Your task to perform on an android device: Open Youtube and go to the subscriptions tab Image 0: 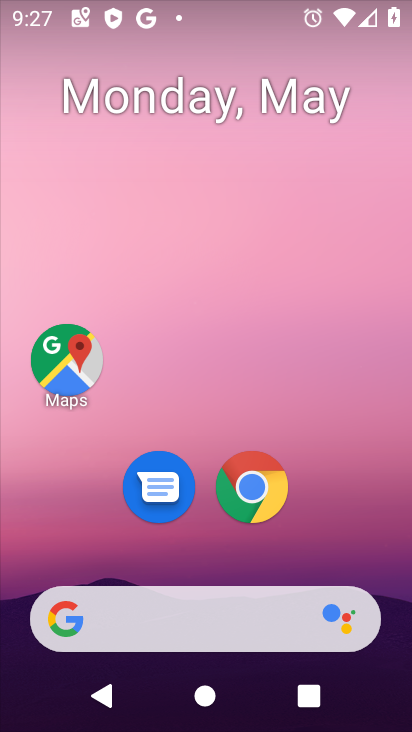
Step 0: drag from (225, 525) to (193, 18)
Your task to perform on an android device: Open Youtube and go to the subscriptions tab Image 1: 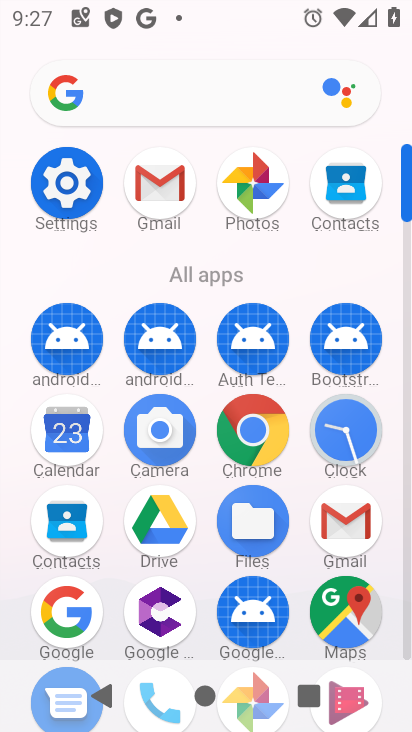
Step 1: drag from (205, 582) to (211, 155)
Your task to perform on an android device: Open Youtube and go to the subscriptions tab Image 2: 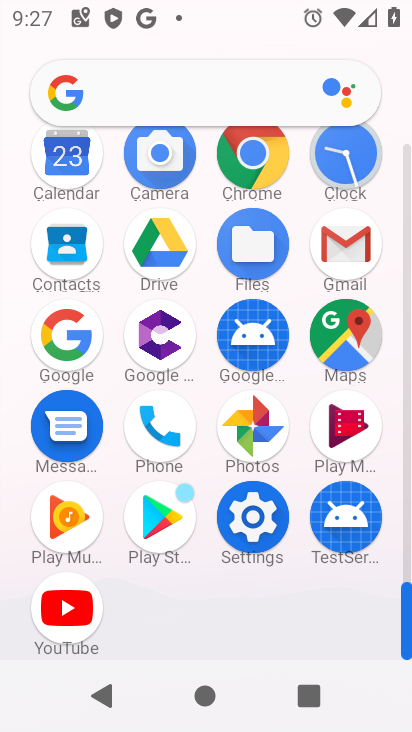
Step 2: click (68, 609)
Your task to perform on an android device: Open Youtube and go to the subscriptions tab Image 3: 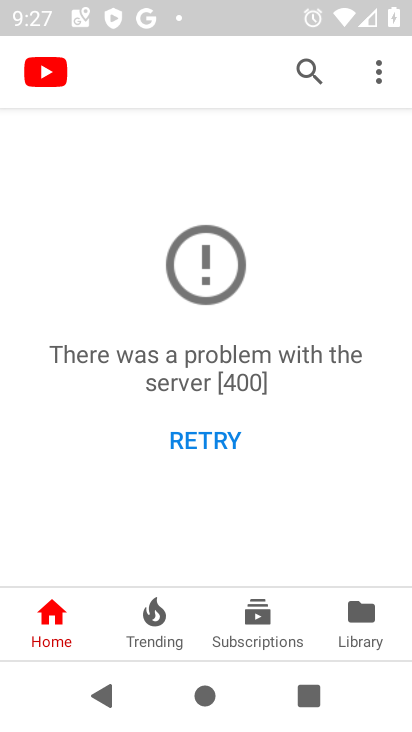
Step 3: click (263, 633)
Your task to perform on an android device: Open Youtube and go to the subscriptions tab Image 4: 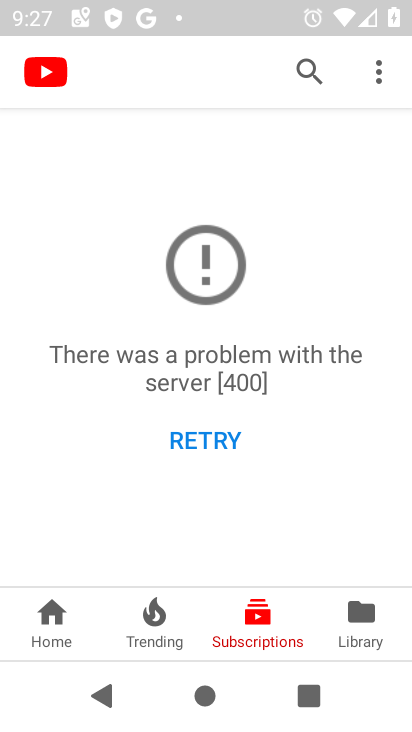
Step 4: task complete